Your task to perform on an android device: turn off location Image 0: 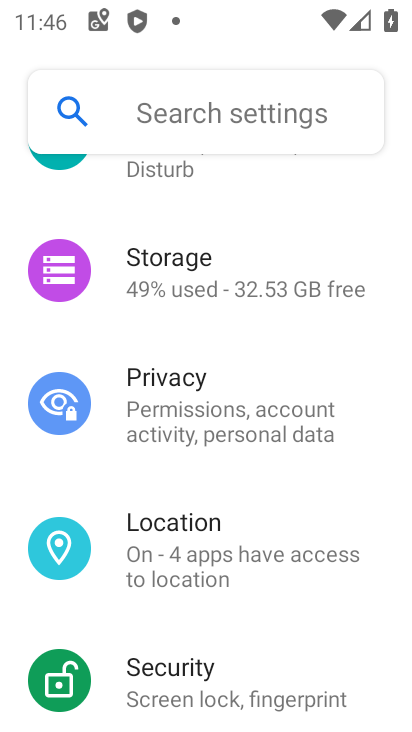
Step 0: click (187, 539)
Your task to perform on an android device: turn off location Image 1: 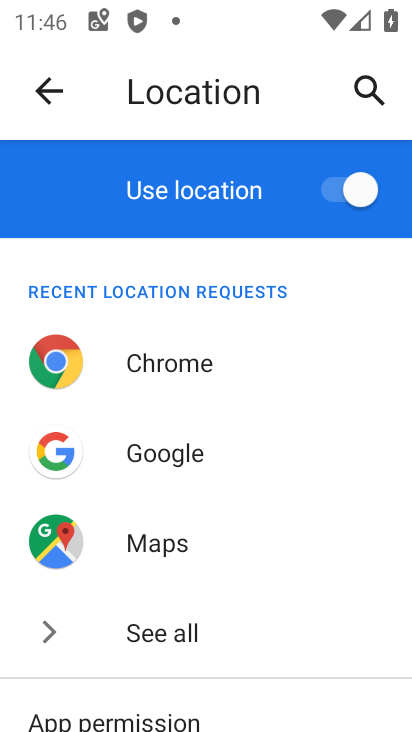
Step 1: click (351, 183)
Your task to perform on an android device: turn off location Image 2: 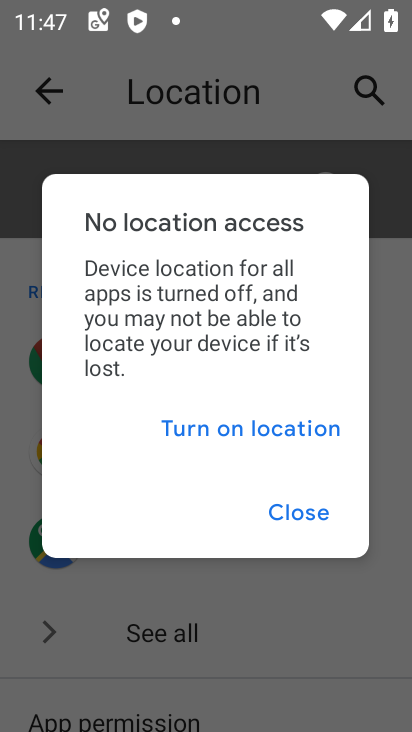
Step 2: task complete